Your task to perform on an android device: Clear all items from cart on amazon. Add "dell xps" to the cart on amazon, then select checkout. Image 0: 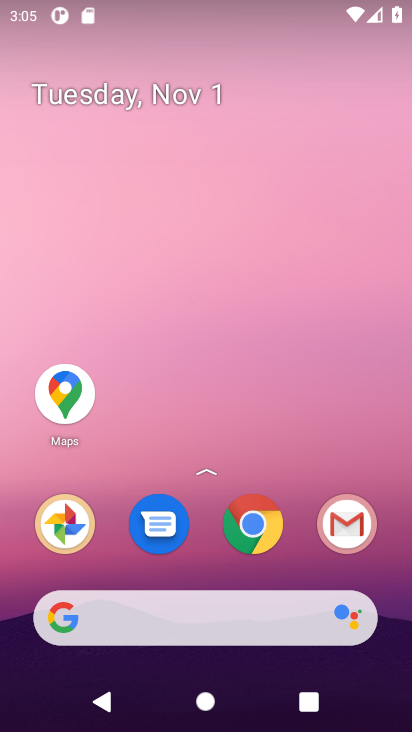
Step 0: click (255, 524)
Your task to perform on an android device: Clear all items from cart on amazon. Add "dell xps" to the cart on amazon, then select checkout. Image 1: 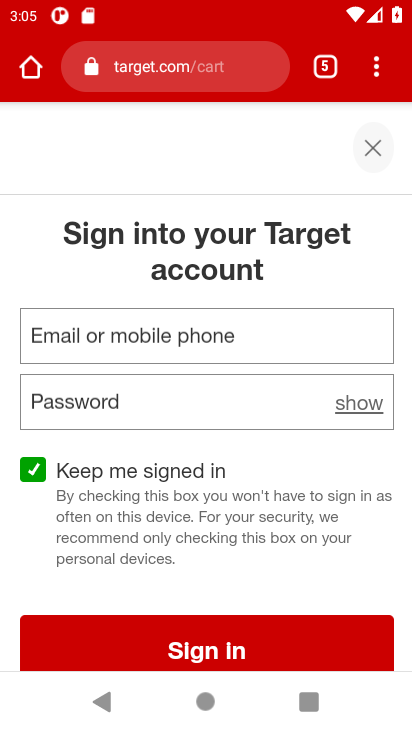
Step 1: click (210, 43)
Your task to perform on an android device: Clear all items from cart on amazon. Add "dell xps" to the cart on amazon, then select checkout. Image 2: 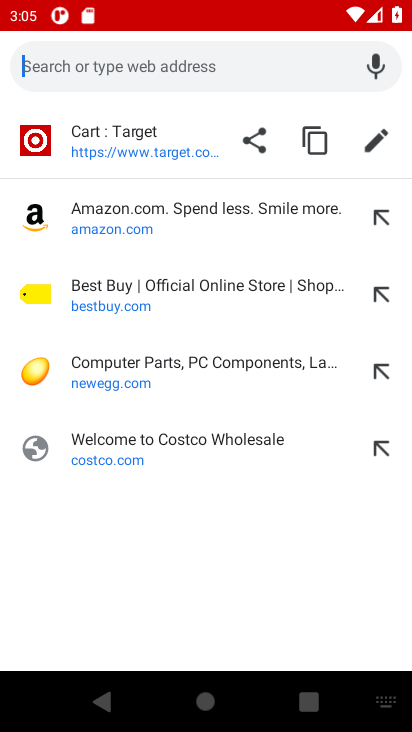
Step 2: type "amazon"
Your task to perform on an android device: Clear all items from cart on amazon. Add "dell xps" to the cart on amazon, then select checkout. Image 3: 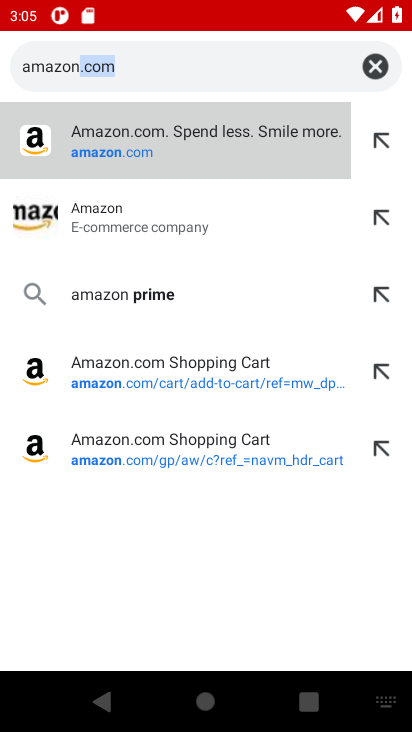
Step 3: click (110, 137)
Your task to perform on an android device: Clear all items from cart on amazon. Add "dell xps" to the cart on amazon, then select checkout. Image 4: 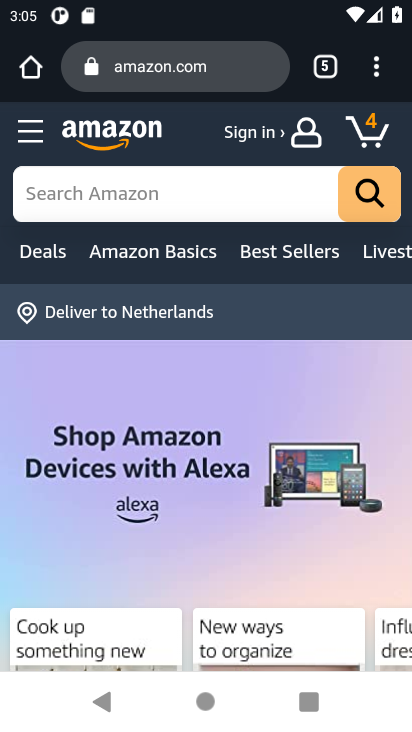
Step 4: click (371, 126)
Your task to perform on an android device: Clear all items from cart on amazon. Add "dell xps" to the cart on amazon, then select checkout. Image 5: 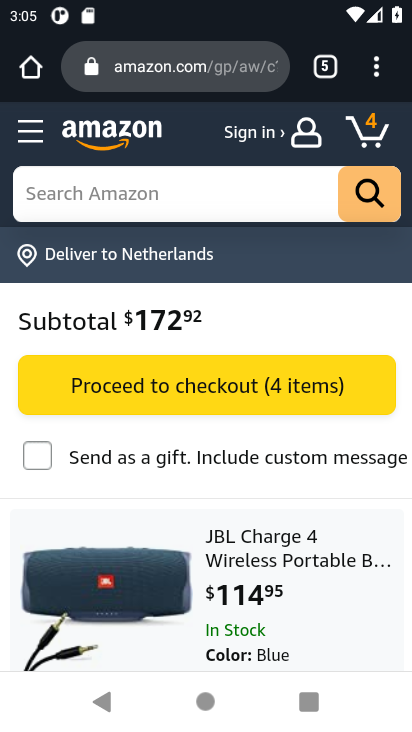
Step 5: drag from (291, 516) to (271, 334)
Your task to perform on an android device: Clear all items from cart on amazon. Add "dell xps" to the cart on amazon, then select checkout. Image 6: 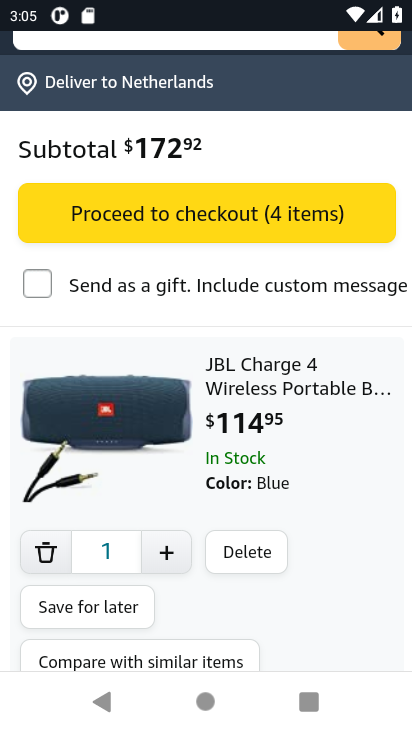
Step 6: drag from (327, 587) to (283, 366)
Your task to perform on an android device: Clear all items from cart on amazon. Add "dell xps" to the cart on amazon, then select checkout. Image 7: 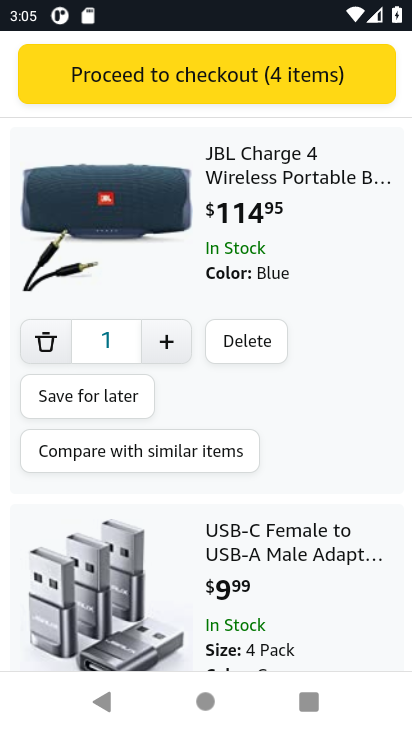
Step 7: click (40, 335)
Your task to perform on an android device: Clear all items from cart on amazon. Add "dell xps" to the cart on amazon, then select checkout. Image 8: 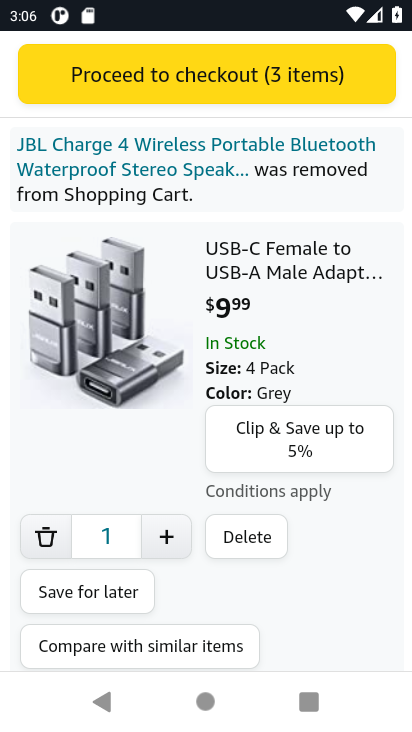
Step 8: click (46, 532)
Your task to perform on an android device: Clear all items from cart on amazon. Add "dell xps" to the cart on amazon, then select checkout. Image 9: 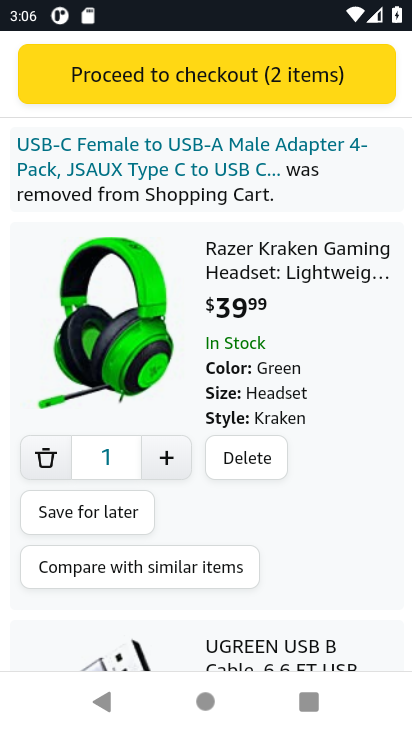
Step 9: click (47, 458)
Your task to perform on an android device: Clear all items from cart on amazon. Add "dell xps" to the cart on amazon, then select checkout. Image 10: 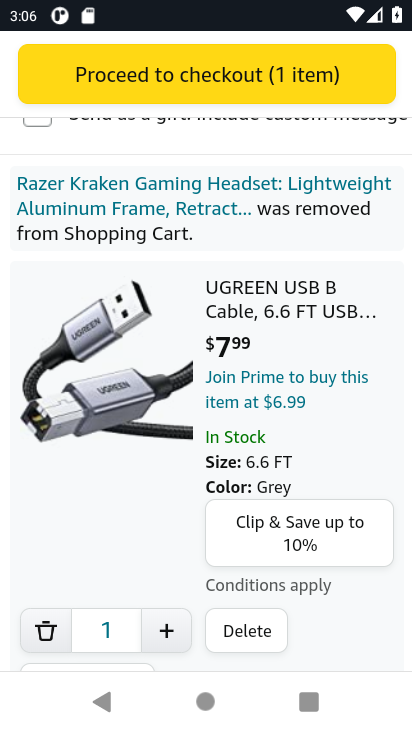
Step 10: click (40, 631)
Your task to perform on an android device: Clear all items from cart on amazon. Add "dell xps" to the cart on amazon, then select checkout. Image 11: 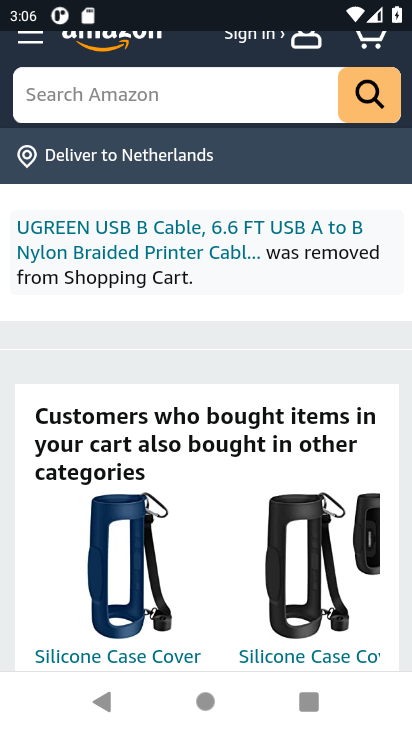
Step 11: drag from (272, 320) to (248, 272)
Your task to perform on an android device: Clear all items from cart on amazon. Add "dell xps" to the cart on amazon, then select checkout. Image 12: 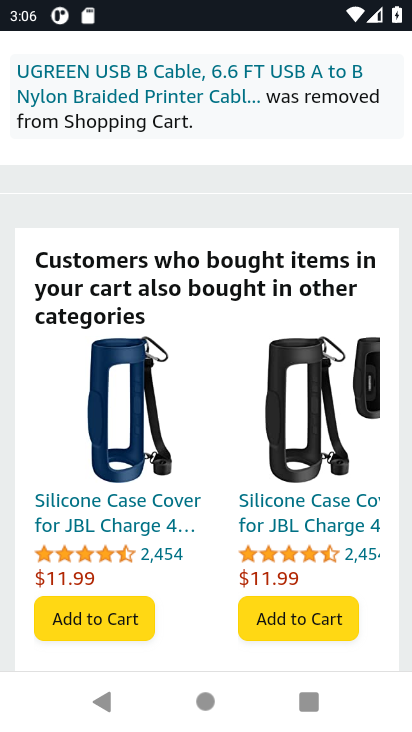
Step 12: drag from (202, 629) to (197, 244)
Your task to perform on an android device: Clear all items from cart on amazon. Add "dell xps" to the cart on amazon, then select checkout. Image 13: 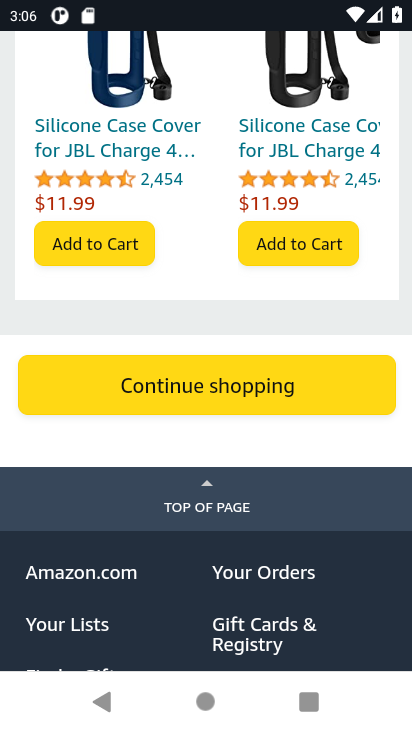
Step 13: click (192, 388)
Your task to perform on an android device: Clear all items from cart on amazon. Add "dell xps" to the cart on amazon, then select checkout. Image 14: 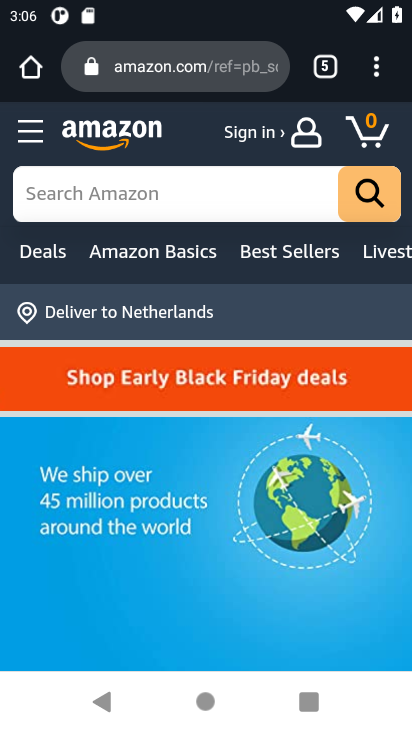
Step 14: click (89, 187)
Your task to perform on an android device: Clear all items from cart on amazon. Add "dell xps" to the cart on amazon, then select checkout. Image 15: 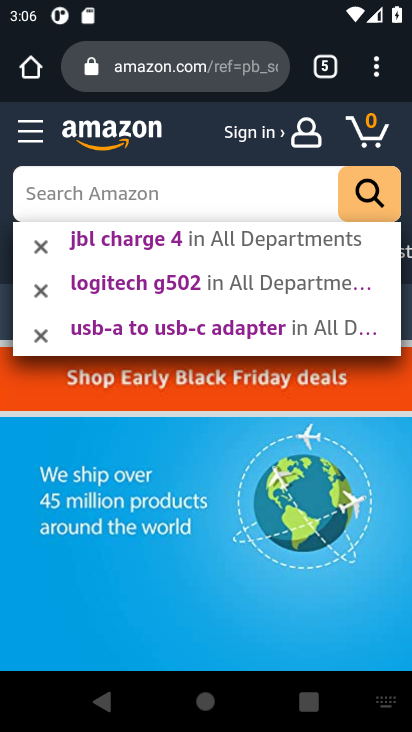
Step 15: type "dell xps"
Your task to perform on an android device: Clear all items from cart on amazon. Add "dell xps" to the cart on amazon, then select checkout. Image 16: 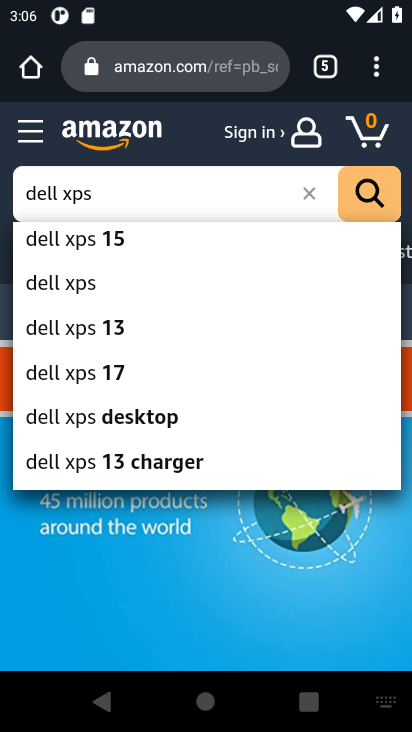
Step 16: click (44, 281)
Your task to perform on an android device: Clear all items from cart on amazon. Add "dell xps" to the cart on amazon, then select checkout. Image 17: 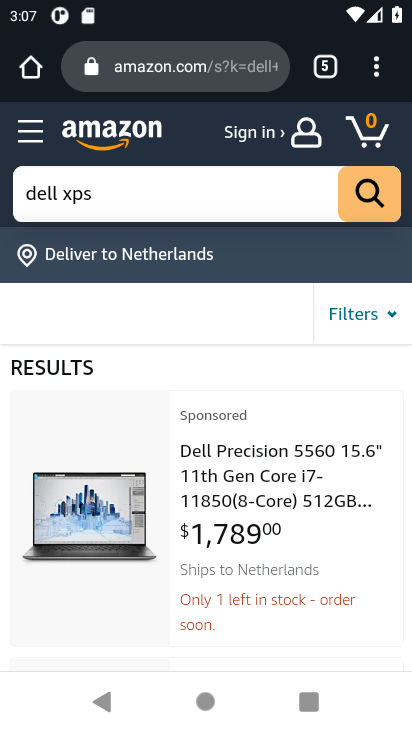
Step 17: drag from (295, 553) to (250, 318)
Your task to perform on an android device: Clear all items from cart on amazon. Add "dell xps" to the cart on amazon, then select checkout. Image 18: 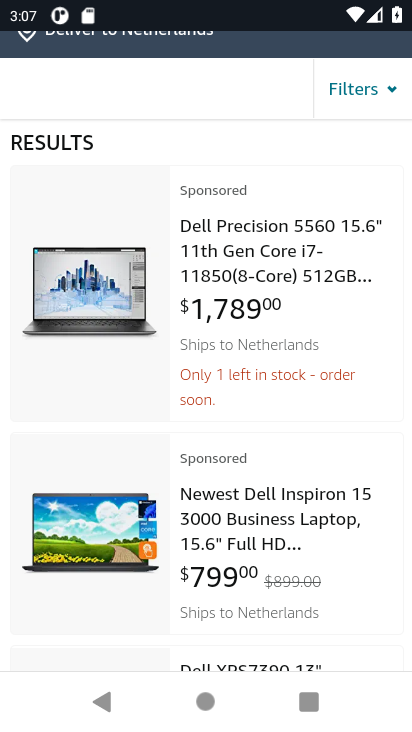
Step 18: drag from (336, 600) to (299, 252)
Your task to perform on an android device: Clear all items from cart on amazon. Add "dell xps" to the cart on amazon, then select checkout. Image 19: 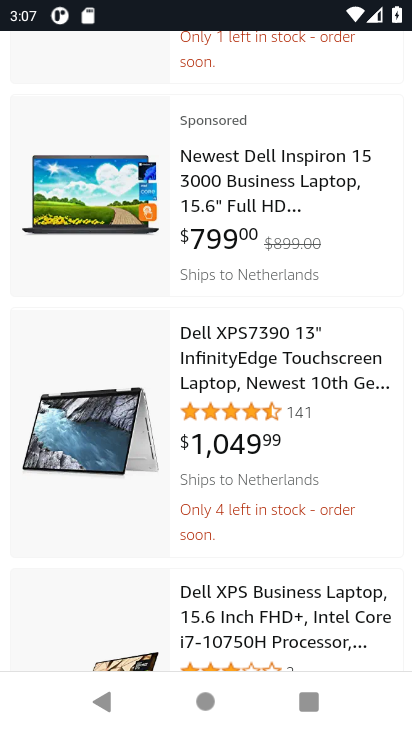
Step 19: click (215, 372)
Your task to perform on an android device: Clear all items from cart on amazon. Add "dell xps" to the cart on amazon, then select checkout. Image 20: 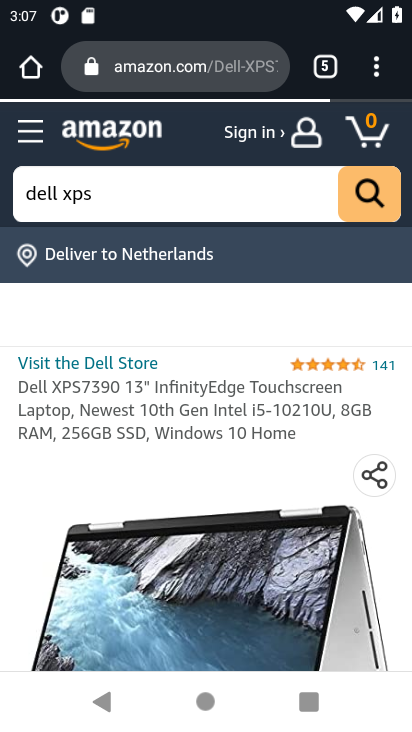
Step 20: drag from (216, 542) to (222, 321)
Your task to perform on an android device: Clear all items from cart on amazon. Add "dell xps" to the cart on amazon, then select checkout. Image 21: 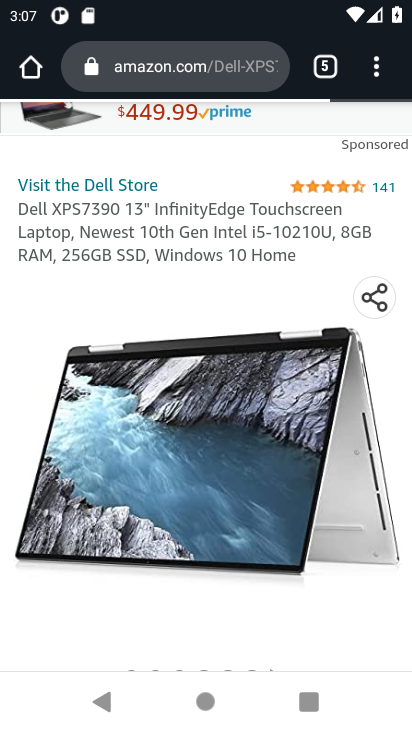
Step 21: drag from (269, 606) to (218, 175)
Your task to perform on an android device: Clear all items from cart on amazon. Add "dell xps" to the cart on amazon, then select checkout. Image 22: 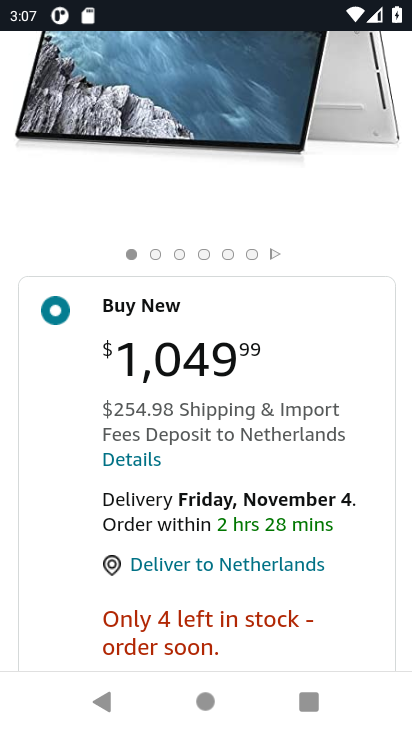
Step 22: drag from (335, 602) to (258, 253)
Your task to perform on an android device: Clear all items from cart on amazon. Add "dell xps" to the cart on amazon, then select checkout. Image 23: 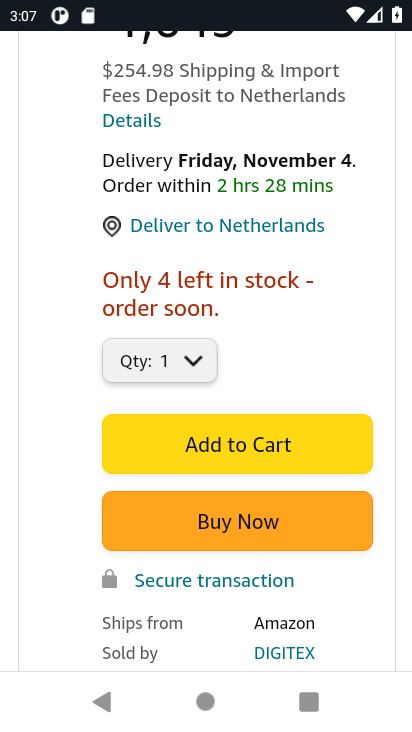
Step 23: click (242, 452)
Your task to perform on an android device: Clear all items from cart on amazon. Add "dell xps" to the cart on amazon, then select checkout. Image 24: 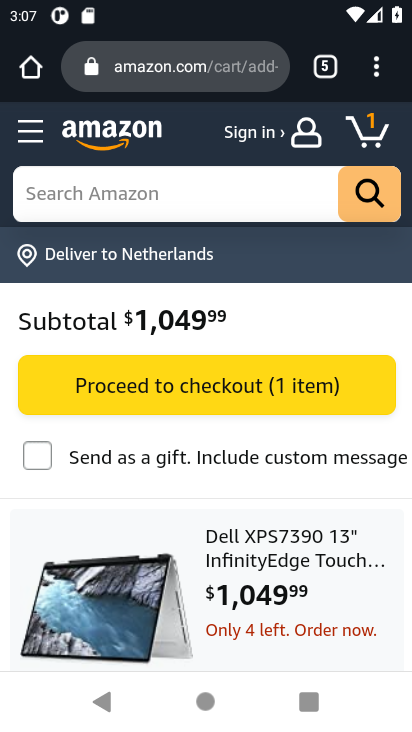
Step 24: click (177, 380)
Your task to perform on an android device: Clear all items from cart on amazon. Add "dell xps" to the cart on amazon, then select checkout. Image 25: 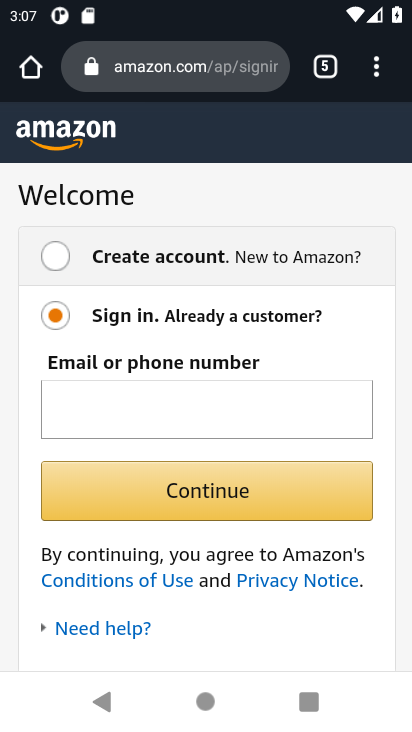
Step 25: task complete